Your task to perform on an android device: turn off picture-in-picture Image 0: 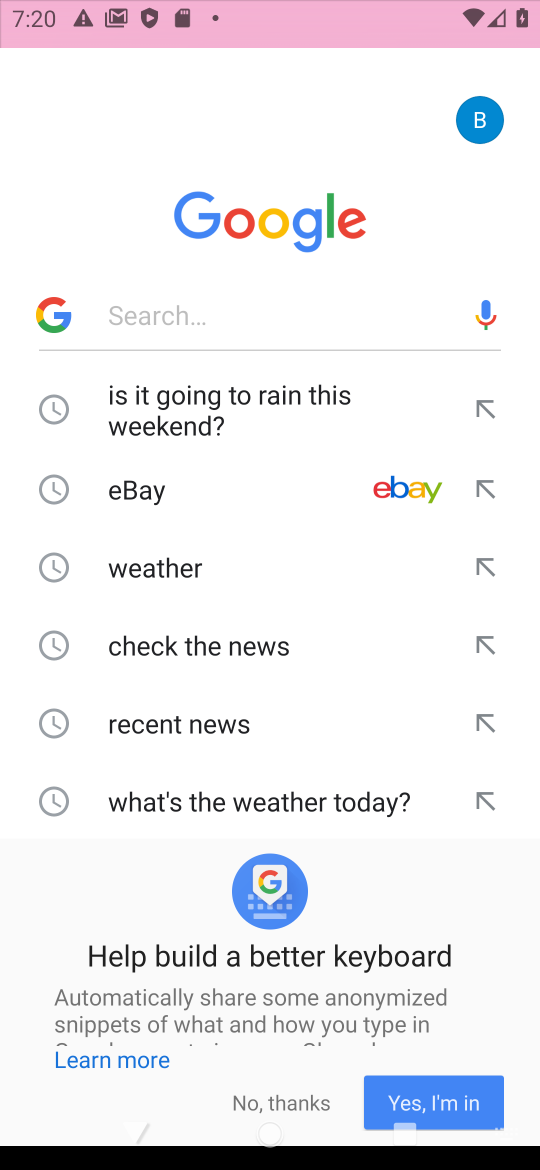
Step 0: press home button
Your task to perform on an android device: turn off picture-in-picture Image 1: 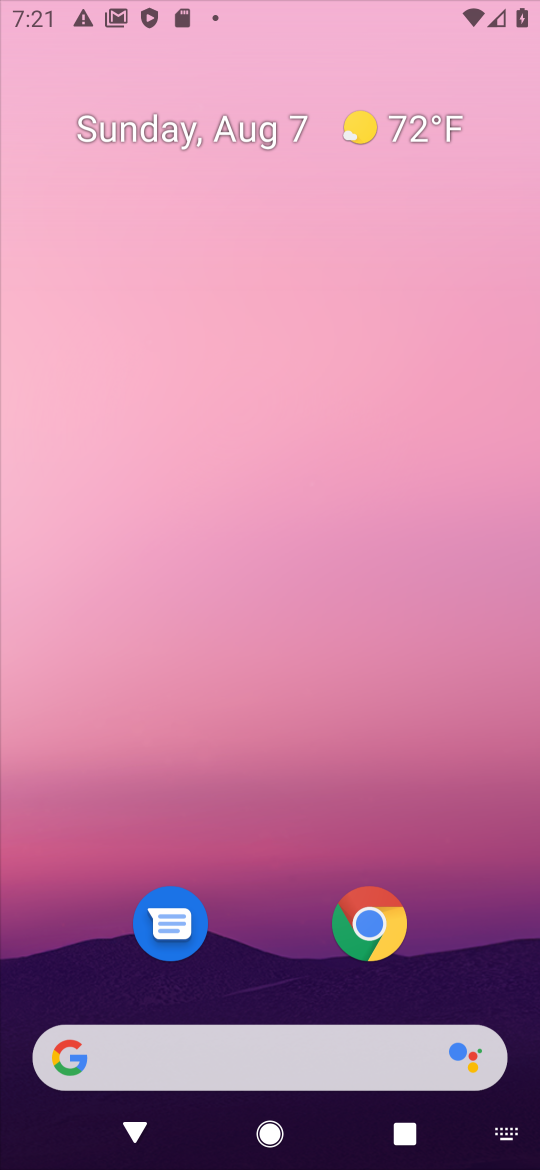
Step 1: drag from (317, 1072) to (248, 312)
Your task to perform on an android device: turn off picture-in-picture Image 2: 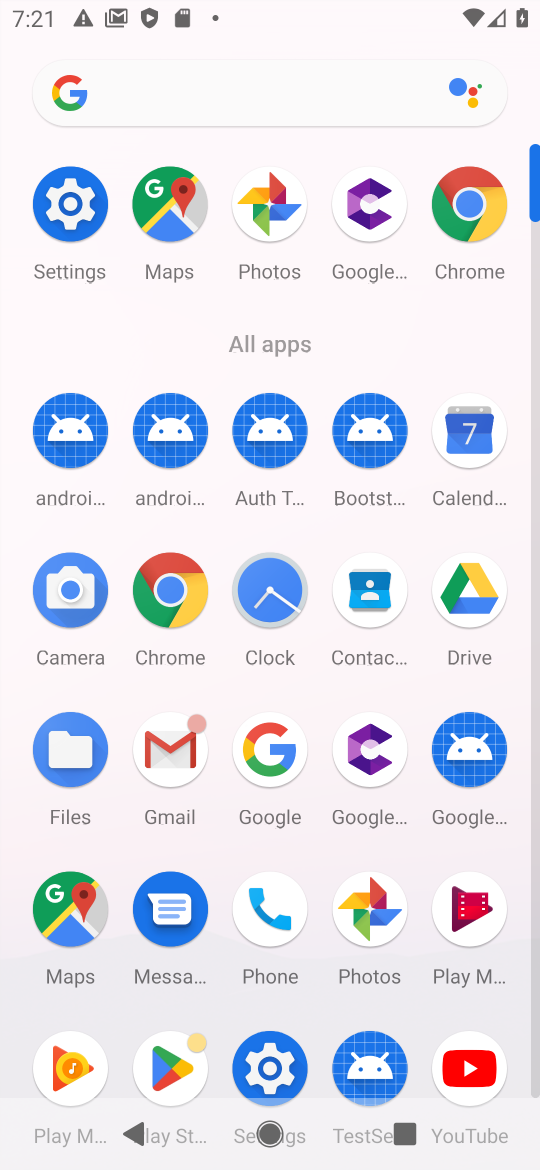
Step 2: drag from (371, 939) to (327, 729)
Your task to perform on an android device: turn off picture-in-picture Image 3: 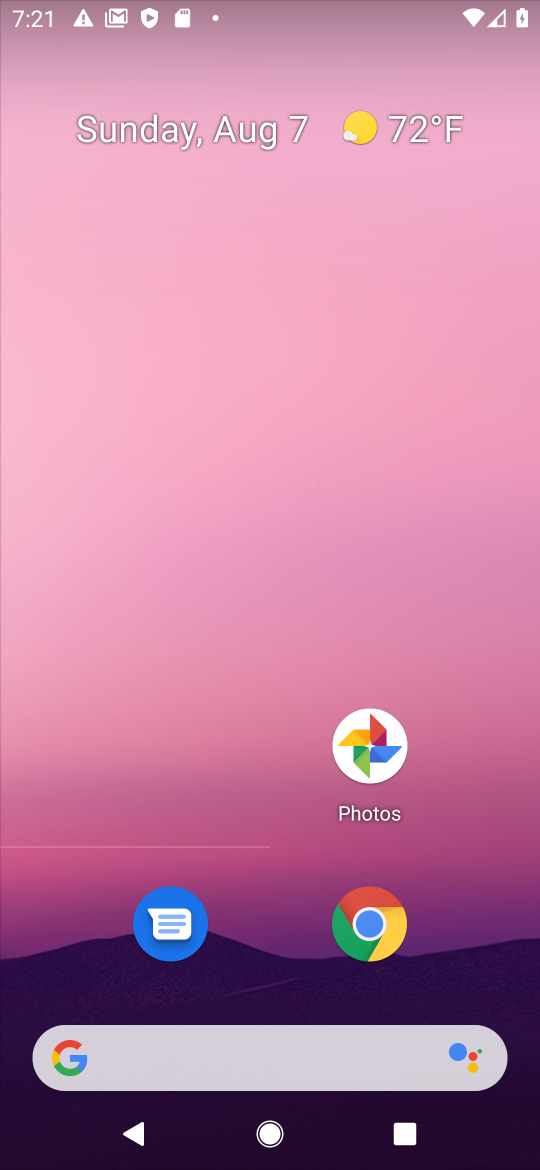
Step 3: drag from (348, 987) to (314, 258)
Your task to perform on an android device: turn off picture-in-picture Image 4: 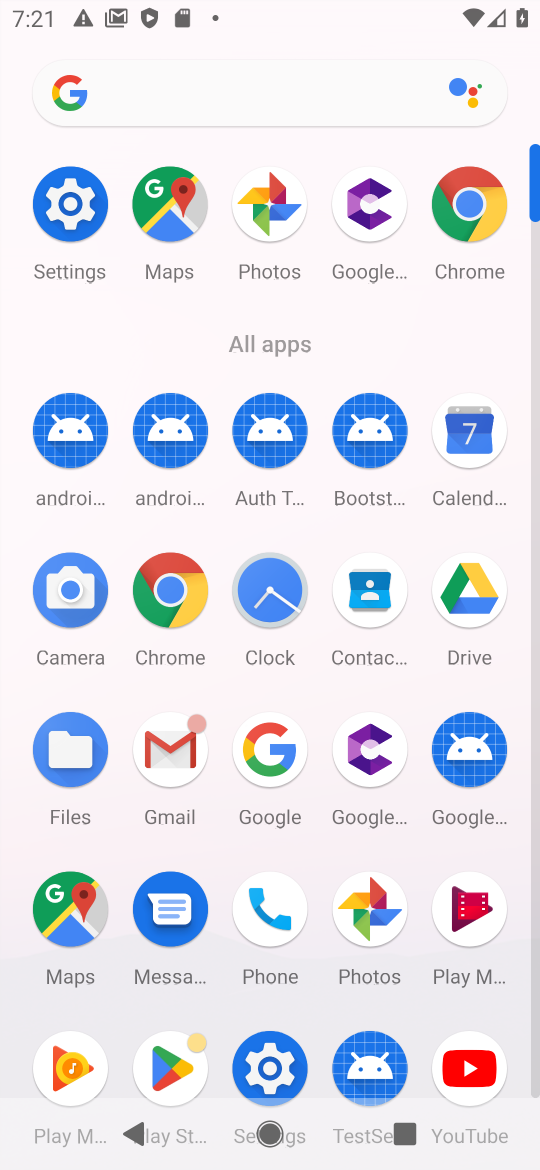
Step 4: click (496, 1051)
Your task to perform on an android device: turn off picture-in-picture Image 5: 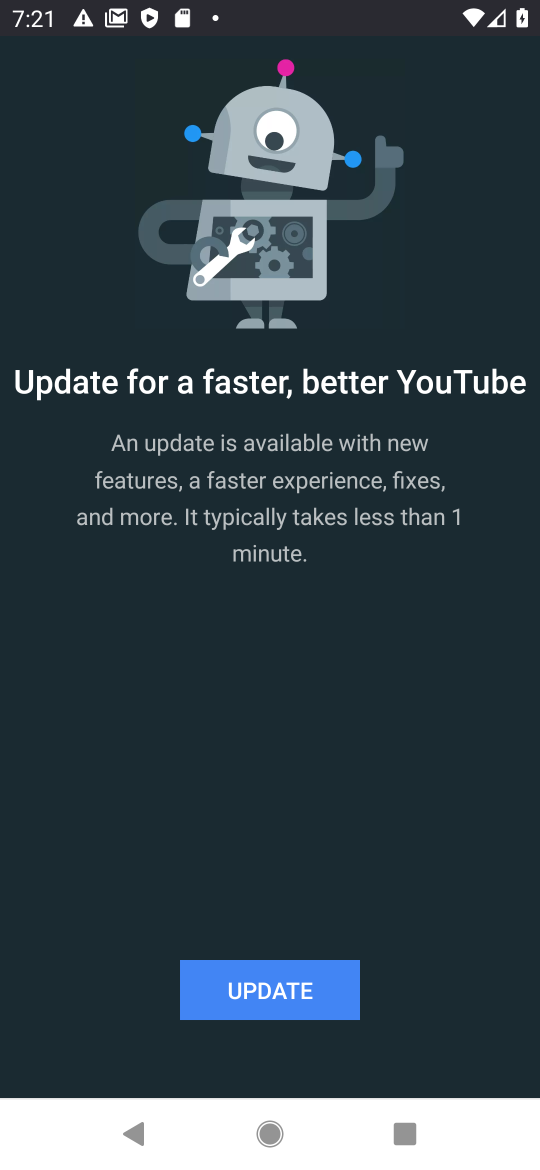
Step 5: click (322, 998)
Your task to perform on an android device: turn off picture-in-picture Image 6: 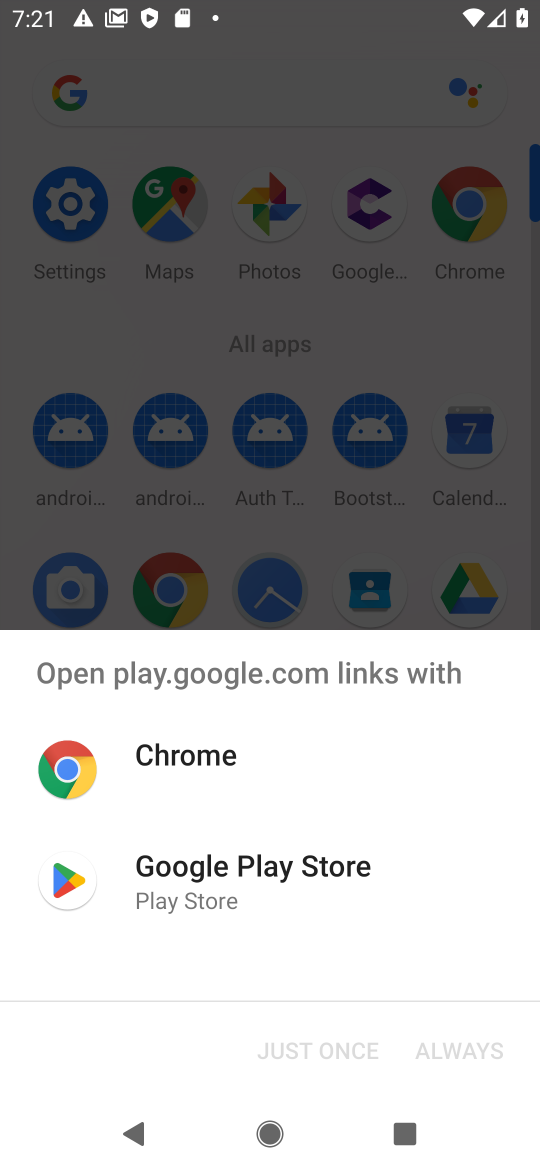
Step 6: click (222, 914)
Your task to perform on an android device: turn off picture-in-picture Image 7: 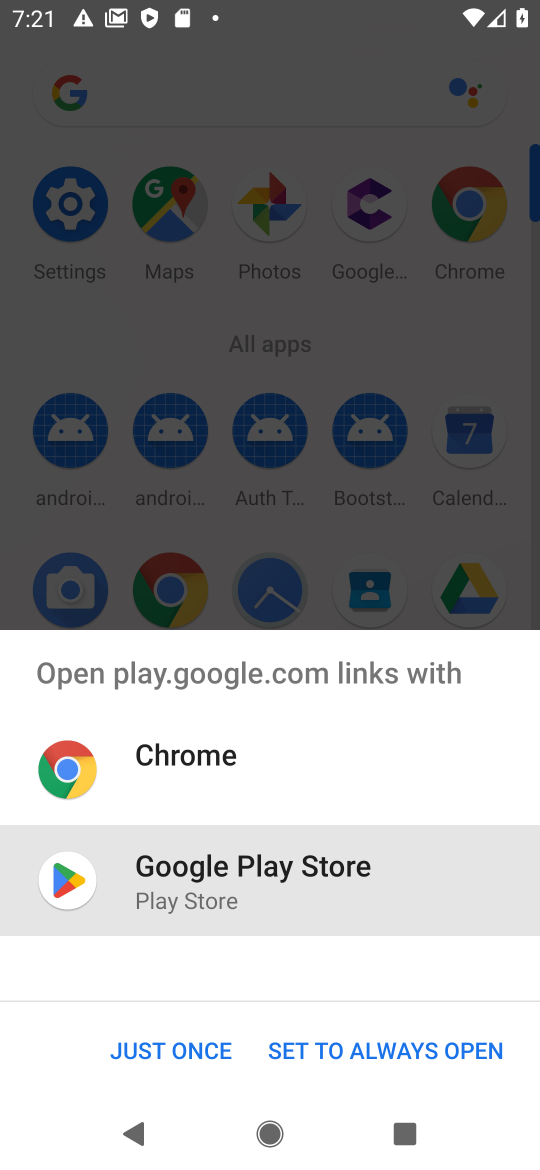
Step 7: click (169, 1060)
Your task to perform on an android device: turn off picture-in-picture Image 8: 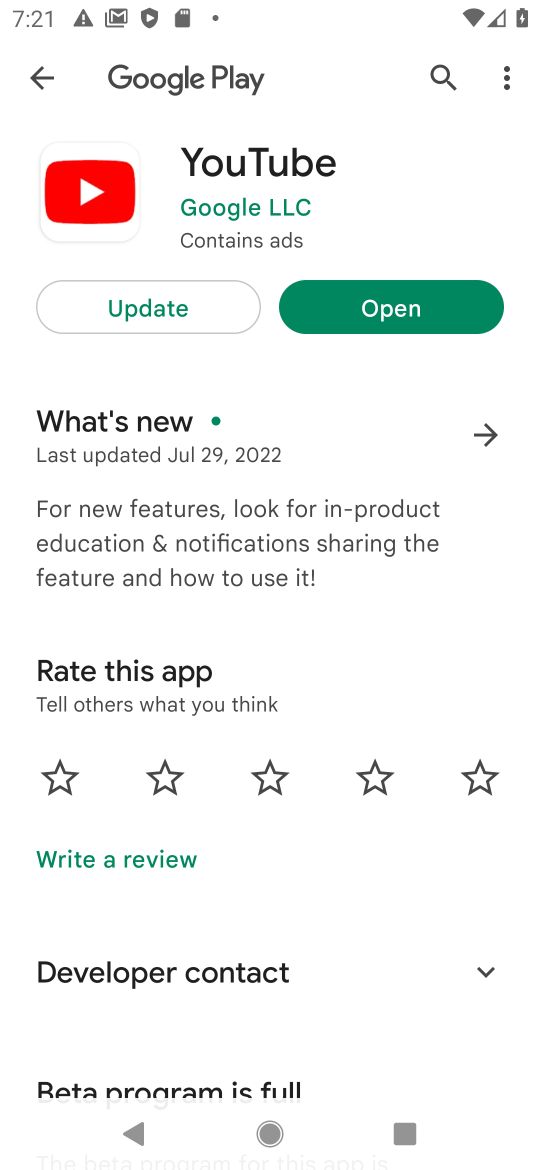
Step 8: click (188, 311)
Your task to perform on an android device: turn off picture-in-picture Image 9: 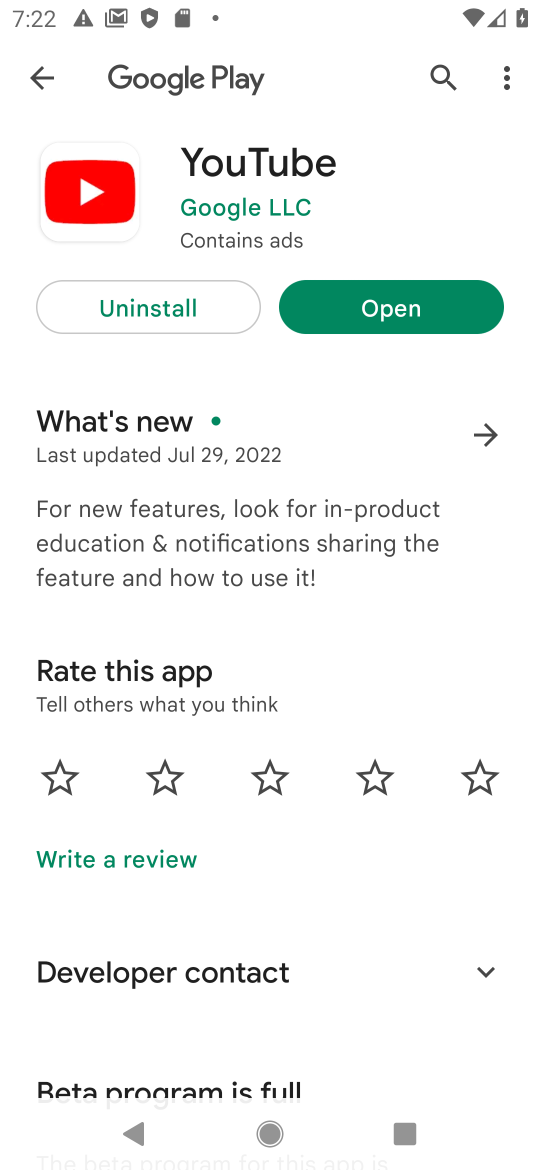
Step 9: click (459, 305)
Your task to perform on an android device: turn off picture-in-picture Image 10: 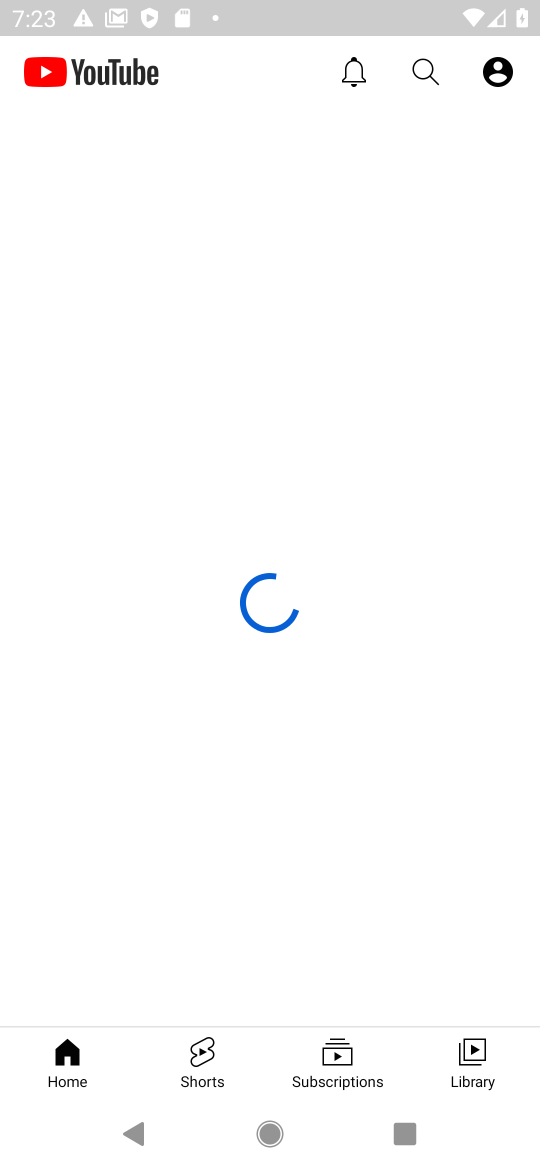
Step 10: click (504, 73)
Your task to perform on an android device: turn off picture-in-picture Image 11: 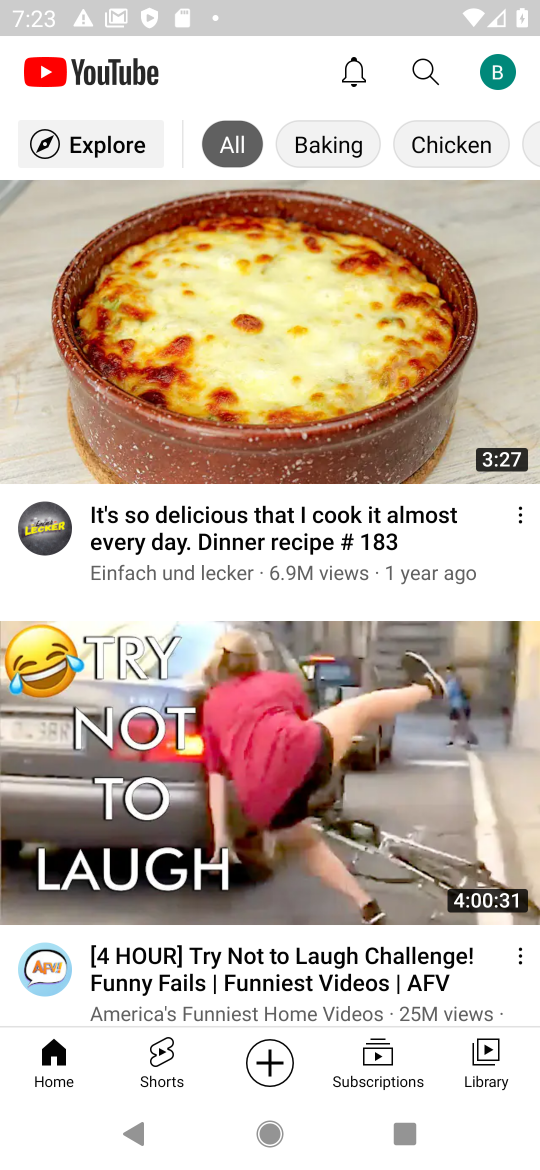
Step 11: click (499, 79)
Your task to perform on an android device: turn off picture-in-picture Image 12: 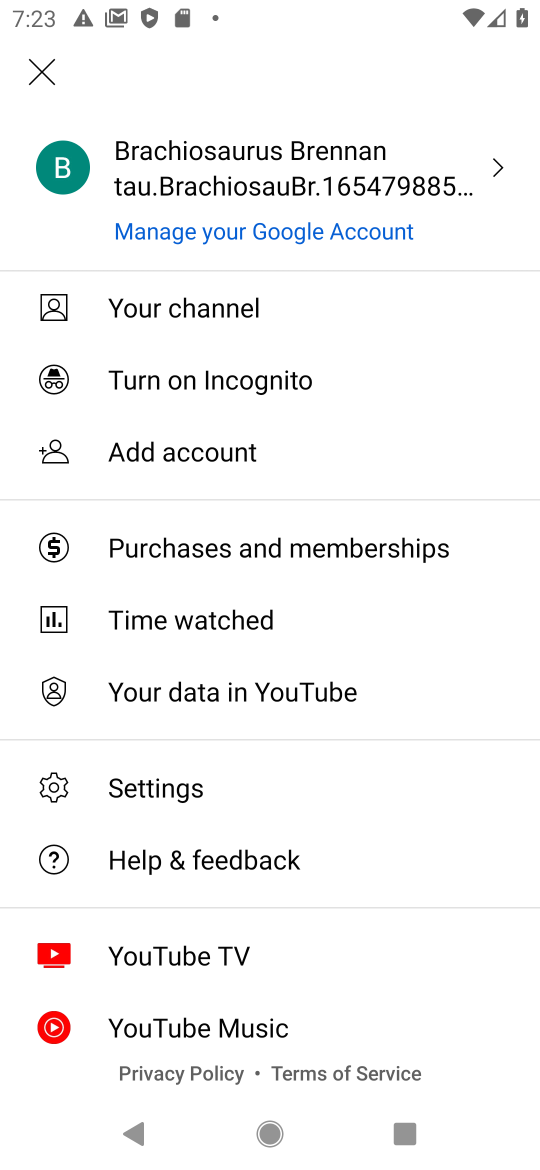
Step 12: drag from (229, 316) to (250, 744)
Your task to perform on an android device: turn off picture-in-picture Image 13: 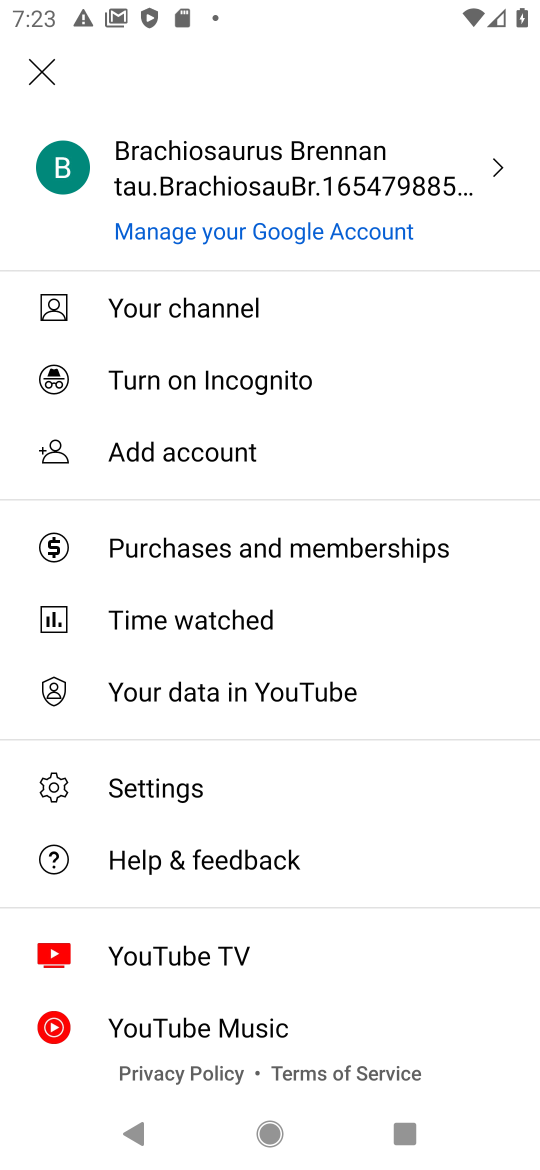
Step 13: click (212, 784)
Your task to perform on an android device: turn off picture-in-picture Image 14: 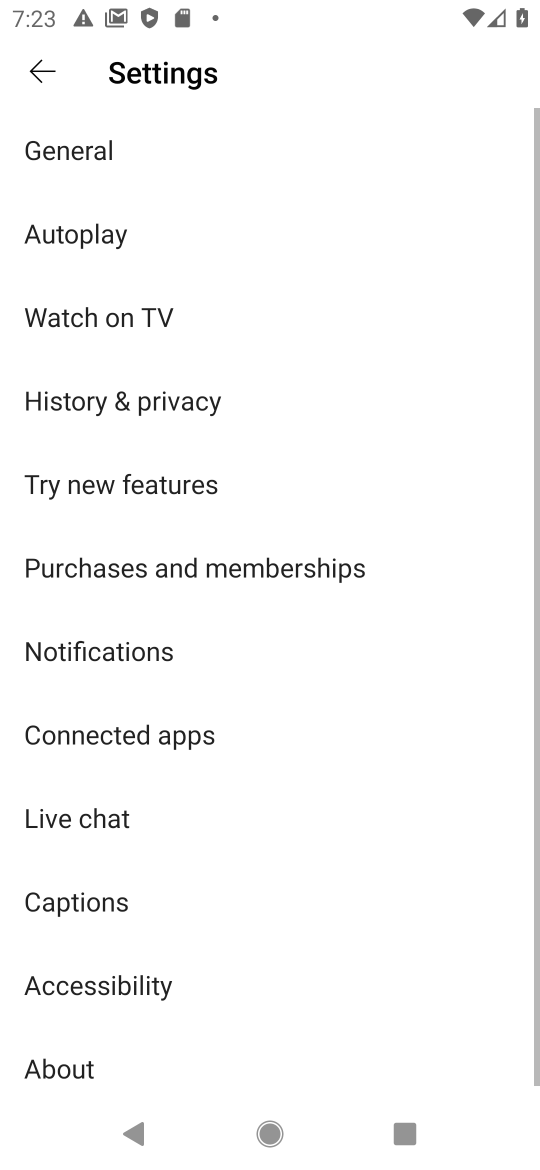
Step 14: click (126, 171)
Your task to perform on an android device: turn off picture-in-picture Image 15: 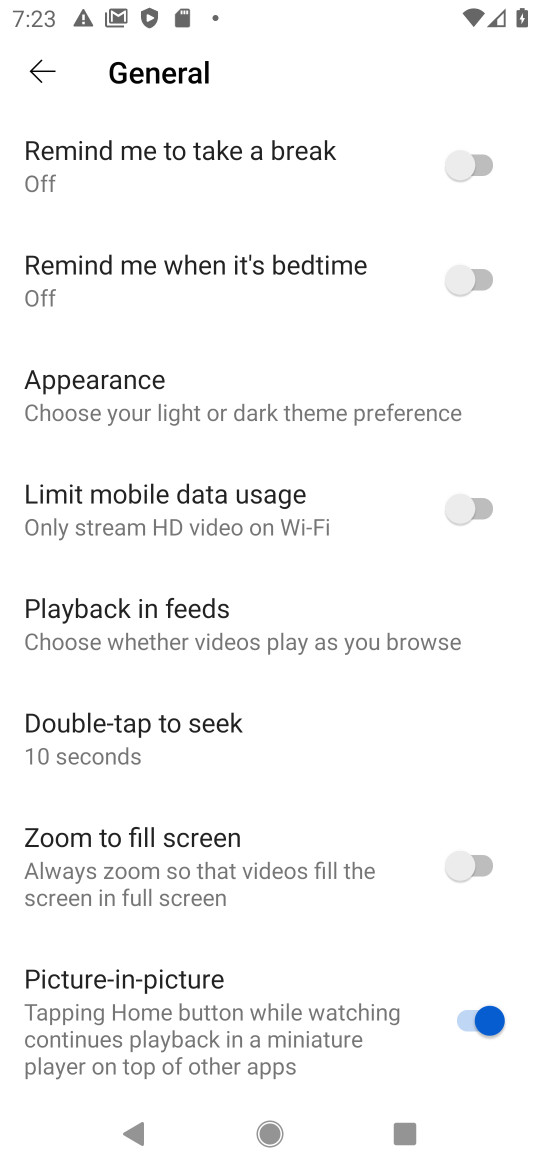
Step 15: click (468, 1045)
Your task to perform on an android device: turn off picture-in-picture Image 16: 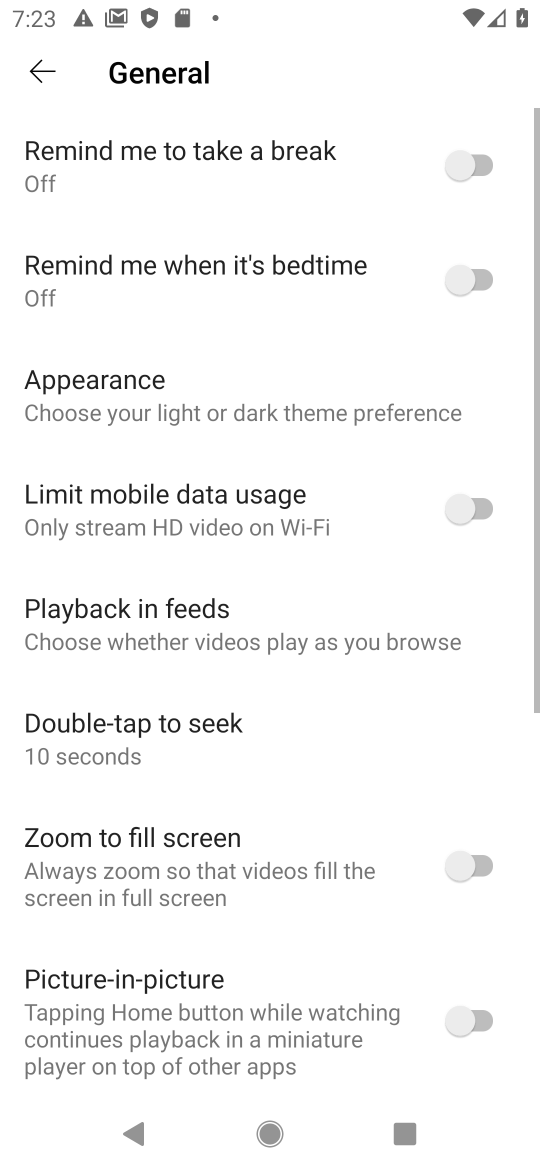
Step 16: task complete